Your task to perform on an android device: Turn on the flashlight Image 0: 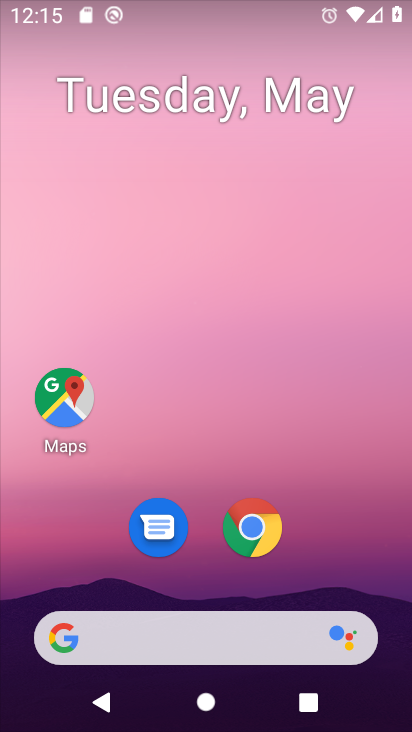
Step 0: drag from (208, 12) to (367, 691)
Your task to perform on an android device: Turn on the flashlight Image 1: 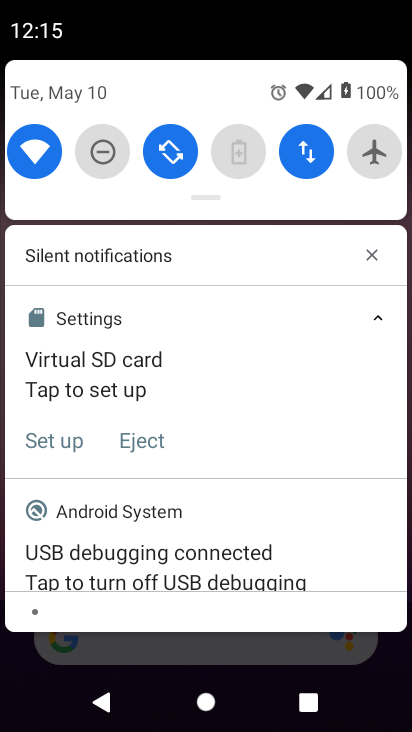
Step 1: task complete